Your task to perform on an android device: Open sound settings Image 0: 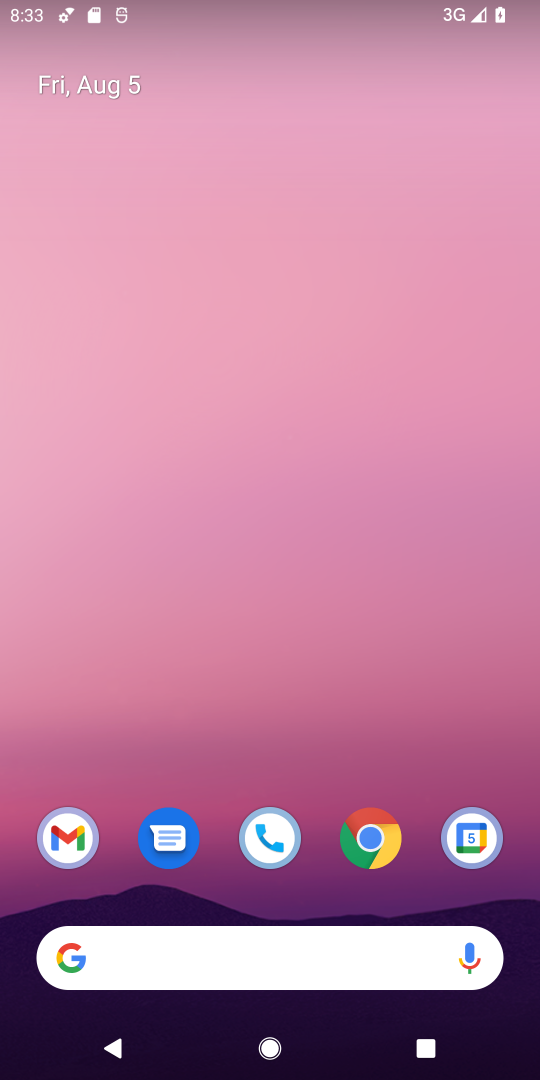
Step 0: drag from (277, 761) to (248, 554)
Your task to perform on an android device: Open sound settings Image 1: 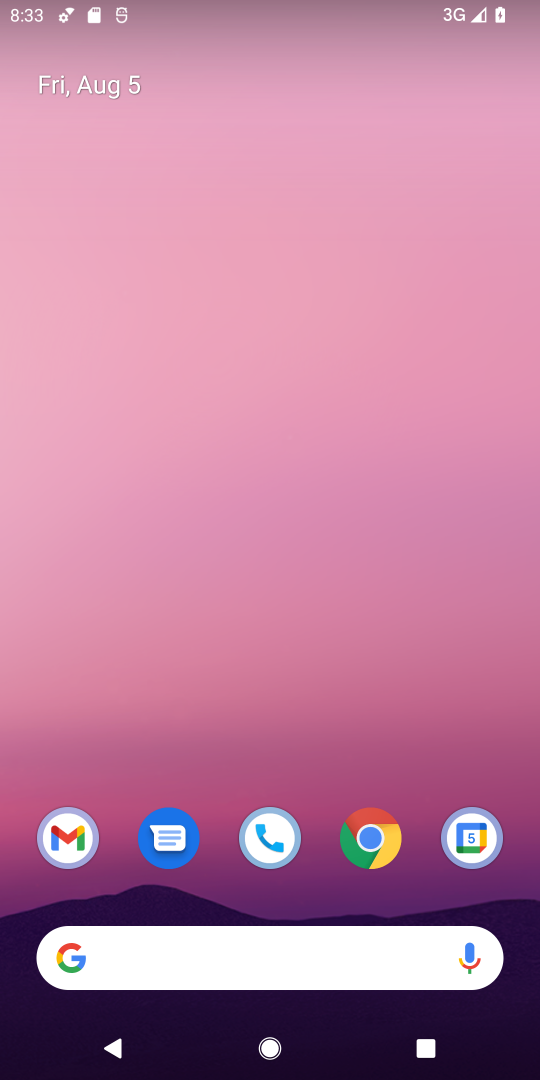
Step 1: drag from (213, 806) to (98, 1)
Your task to perform on an android device: Open sound settings Image 2: 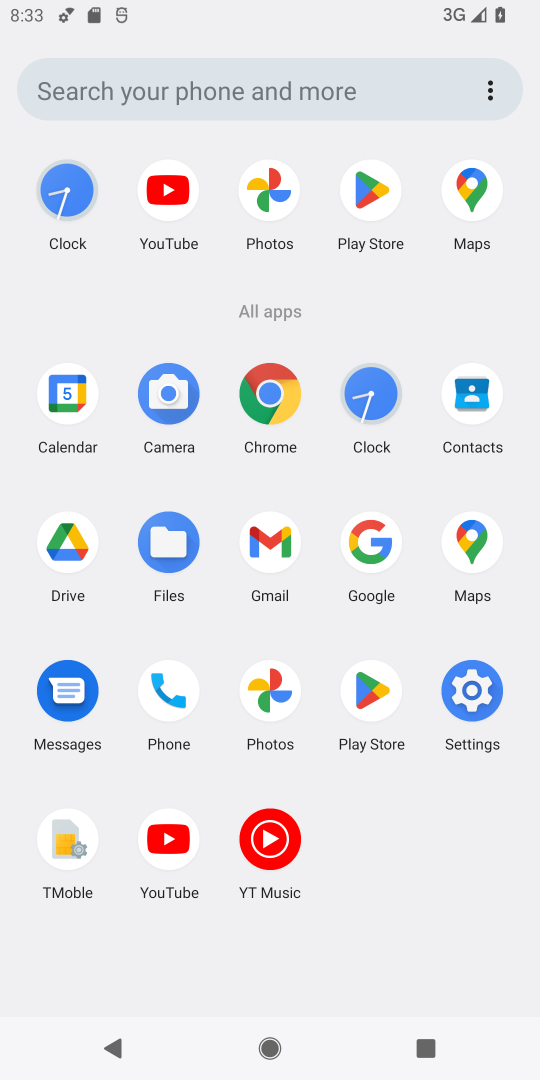
Step 2: click (460, 703)
Your task to perform on an android device: Open sound settings Image 3: 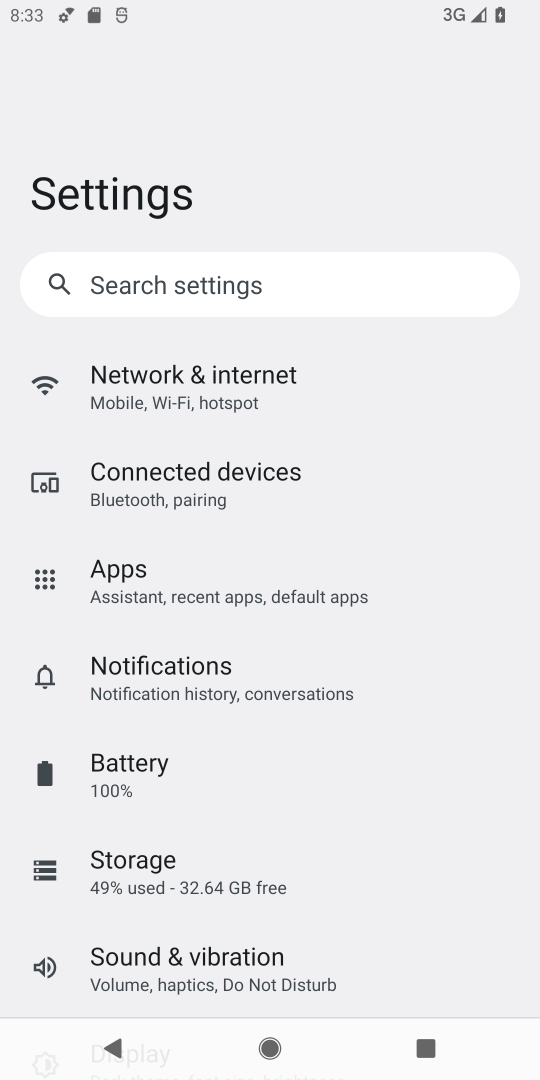
Step 3: click (207, 962)
Your task to perform on an android device: Open sound settings Image 4: 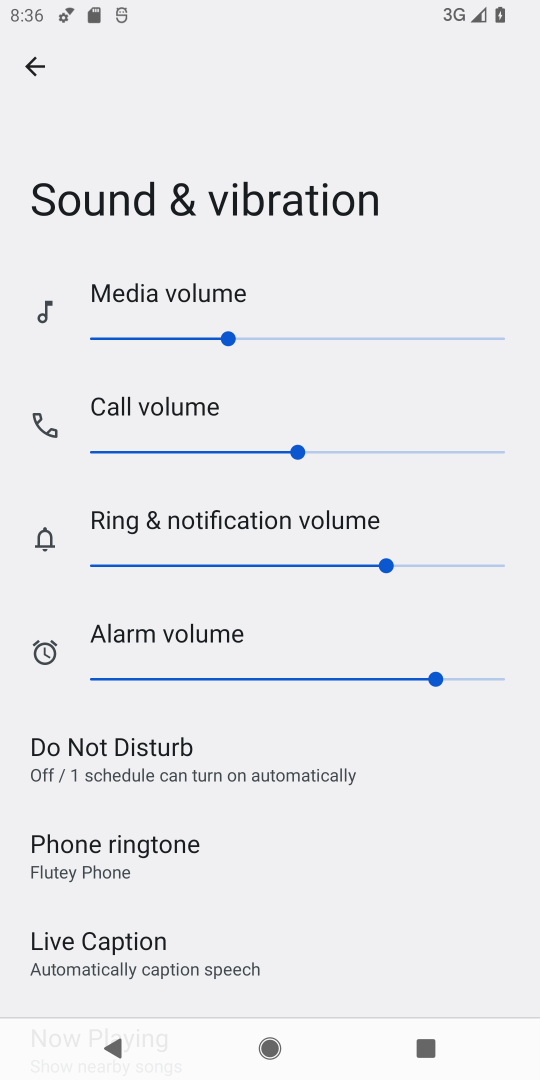
Step 4: task complete